Your task to perform on an android device: turn off notifications settings in the gmail app Image 0: 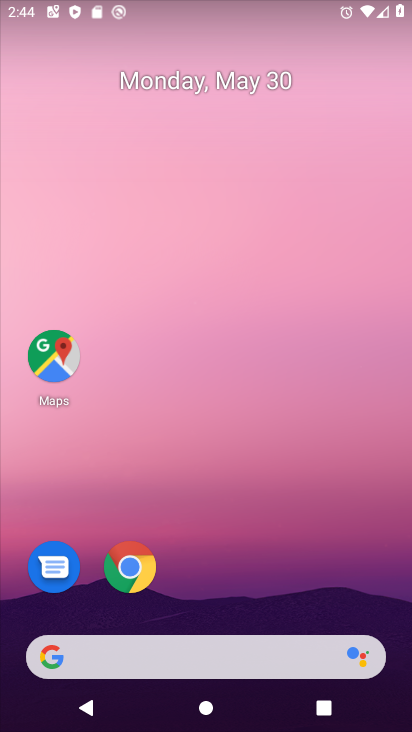
Step 0: drag from (179, 624) to (231, 81)
Your task to perform on an android device: turn off notifications settings in the gmail app Image 1: 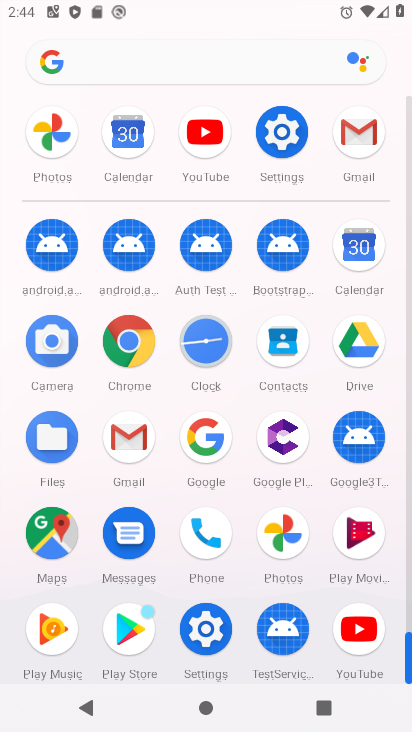
Step 1: click (129, 449)
Your task to perform on an android device: turn off notifications settings in the gmail app Image 2: 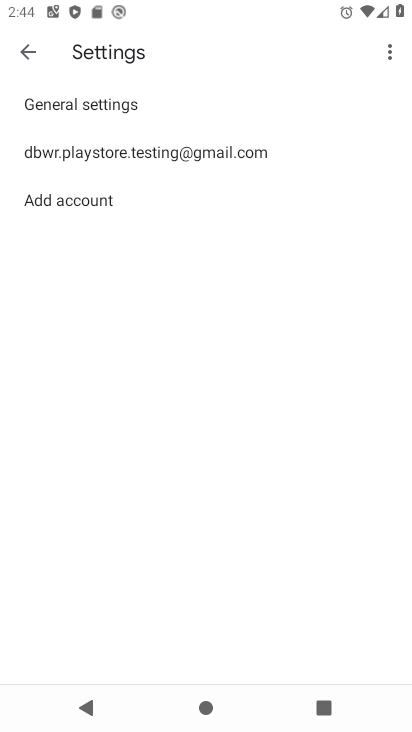
Step 2: click (105, 98)
Your task to perform on an android device: turn off notifications settings in the gmail app Image 3: 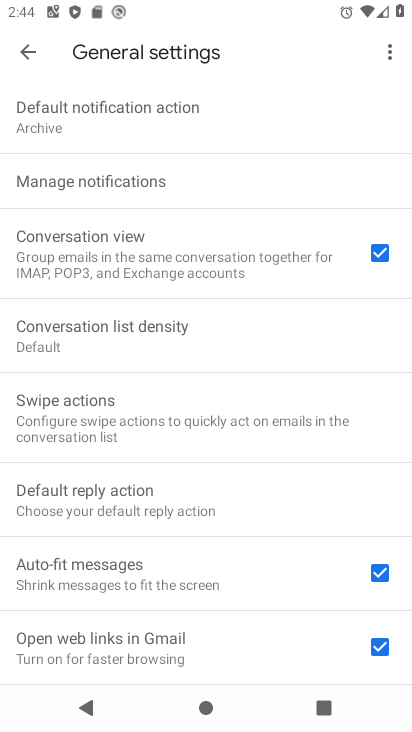
Step 3: click (111, 190)
Your task to perform on an android device: turn off notifications settings in the gmail app Image 4: 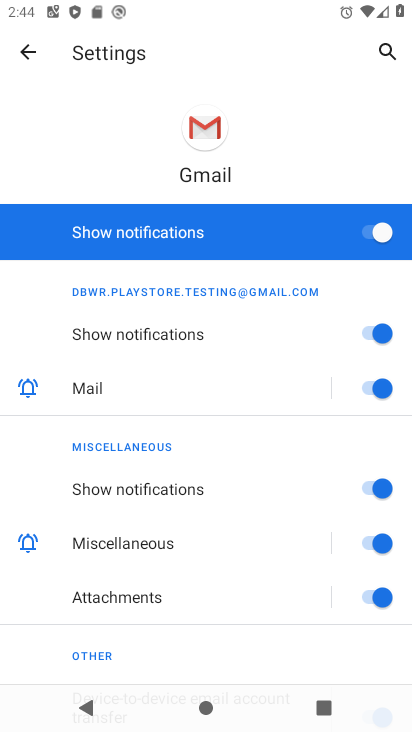
Step 4: click (344, 234)
Your task to perform on an android device: turn off notifications settings in the gmail app Image 5: 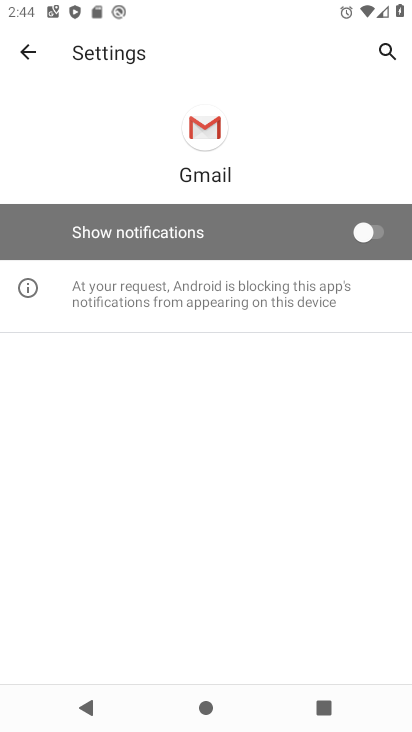
Step 5: task complete